Your task to perform on an android device: Go to Amazon Image 0: 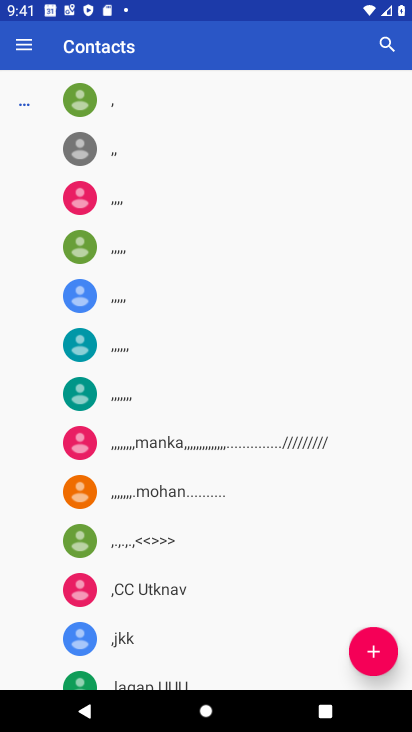
Step 0: press home button
Your task to perform on an android device: Go to Amazon Image 1: 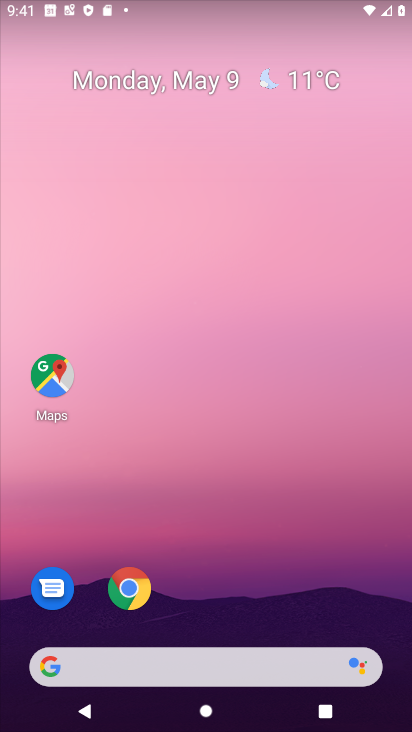
Step 1: drag from (201, 662) to (318, 270)
Your task to perform on an android device: Go to Amazon Image 2: 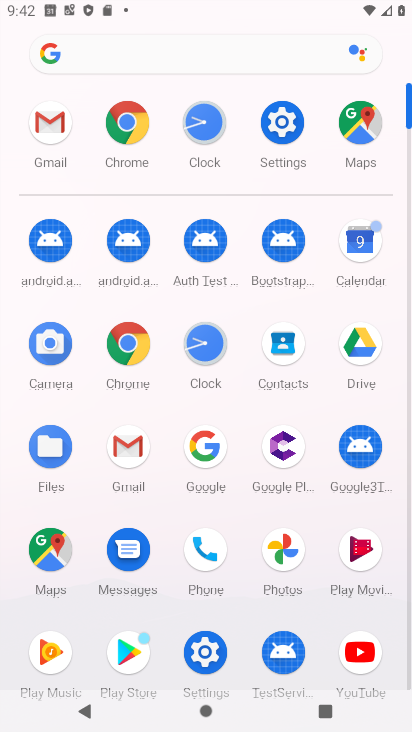
Step 2: click (123, 136)
Your task to perform on an android device: Go to Amazon Image 3: 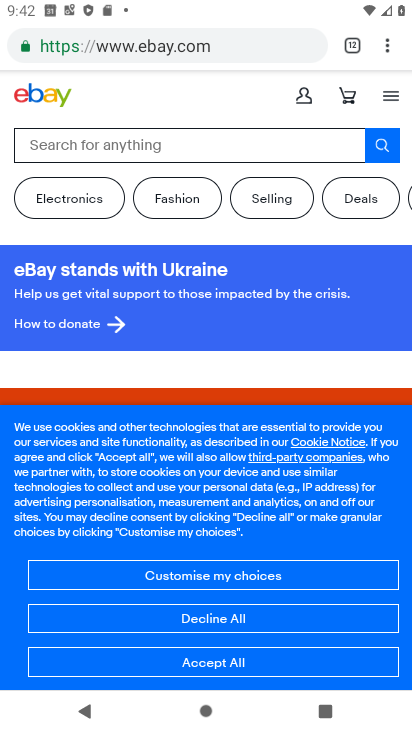
Step 3: drag from (385, 45) to (306, 94)
Your task to perform on an android device: Go to Amazon Image 4: 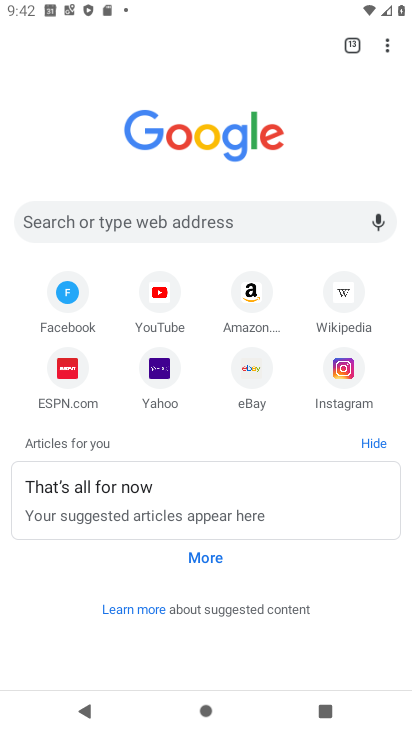
Step 4: click (251, 296)
Your task to perform on an android device: Go to Amazon Image 5: 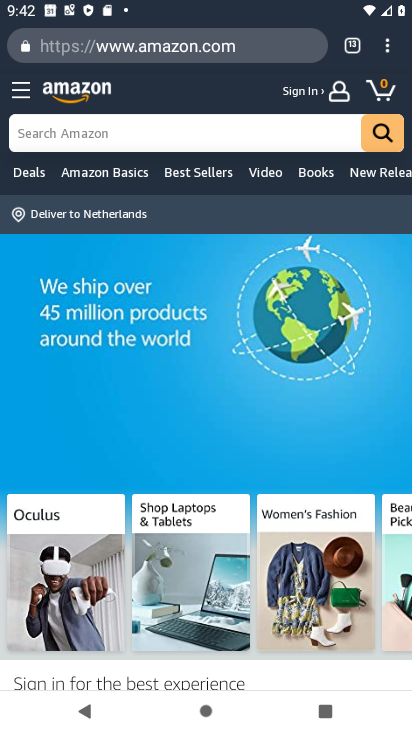
Step 5: task complete